Your task to perform on an android device: What's the weather today? Image 0: 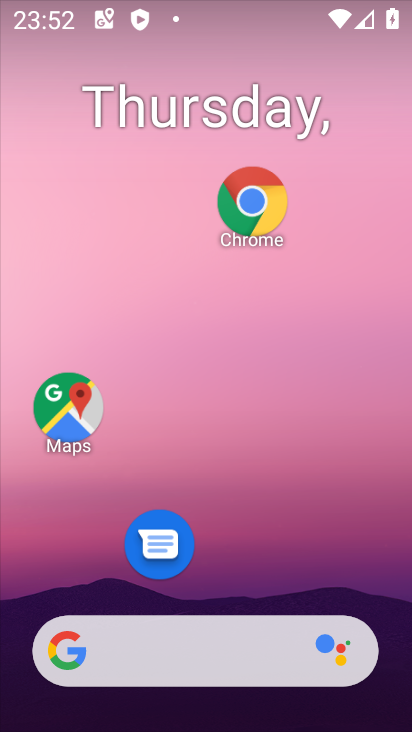
Step 0: drag from (223, 573) to (204, 52)
Your task to perform on an android device: What's the weather today? Image 1: 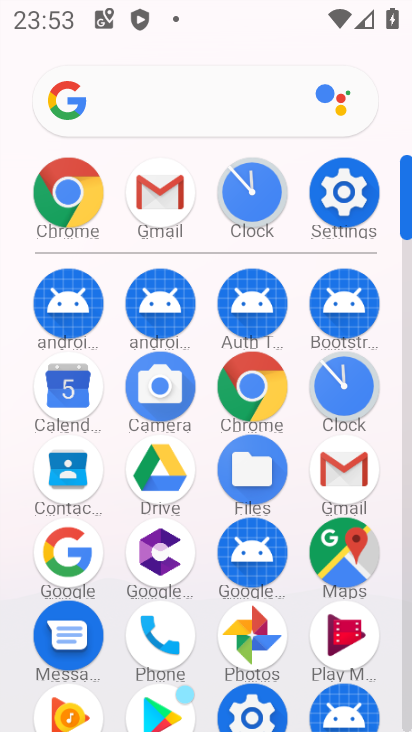
Step 1: press back button
Your task to perform on an android device: What's the weather today? Image 2: 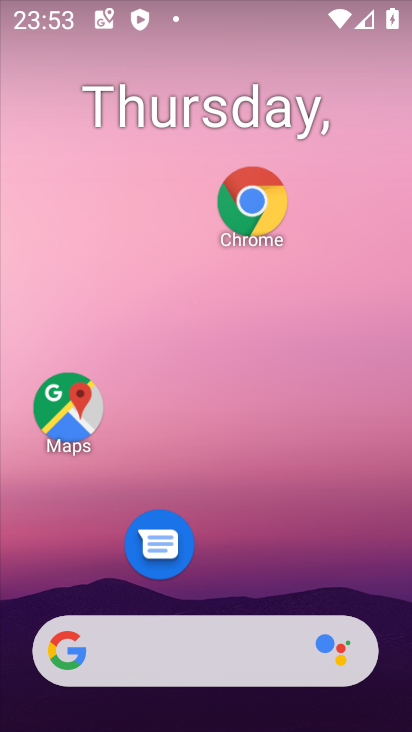
Step 2: drag from (11, 299) to (389, 275)
Your task to perform on an android device: What's the weather today? Image 3: 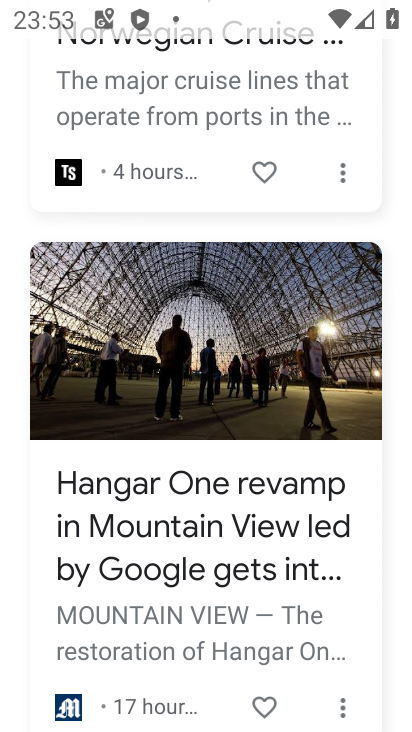
Step 3: drag from (198, 86) to (216, 710)
Your task to perform on an android device: What's the weather today? Image 4: 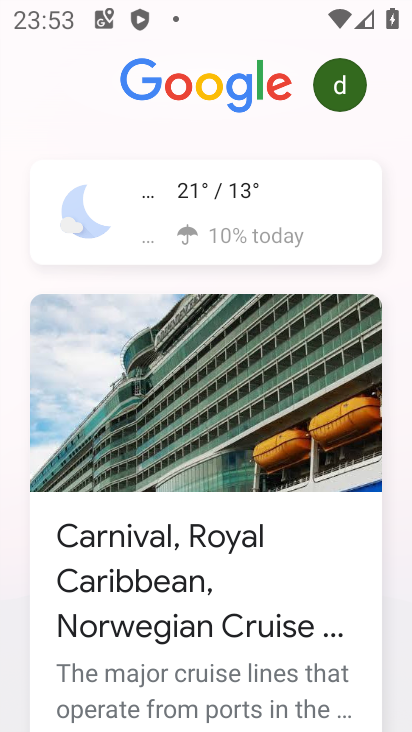
Step 4: click (210, 200)
Your task to perform on an android device: What's the weather today? Image 5: 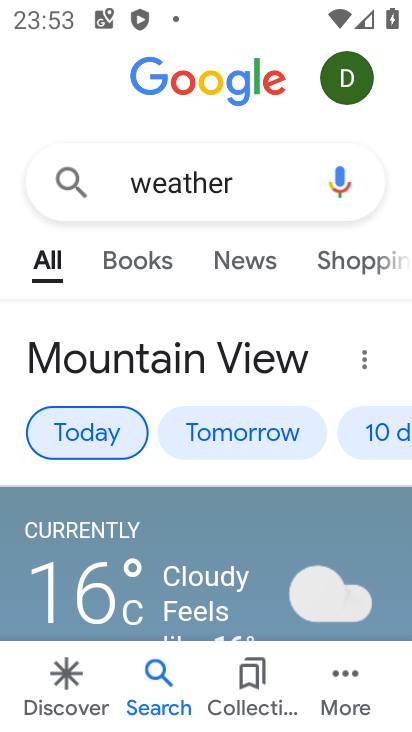
Step 5: task complete